Your task to perform on an android device: Add "logitech g pro" to the cart on ebay.com Image 0: 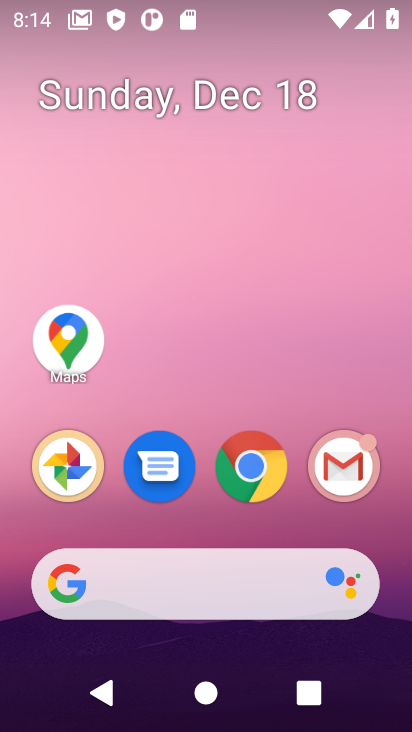
Step 0: click (247, 484)
Your task to perform on an android device: Add "logitech g pro" to the cart on ebay.com Image 1: 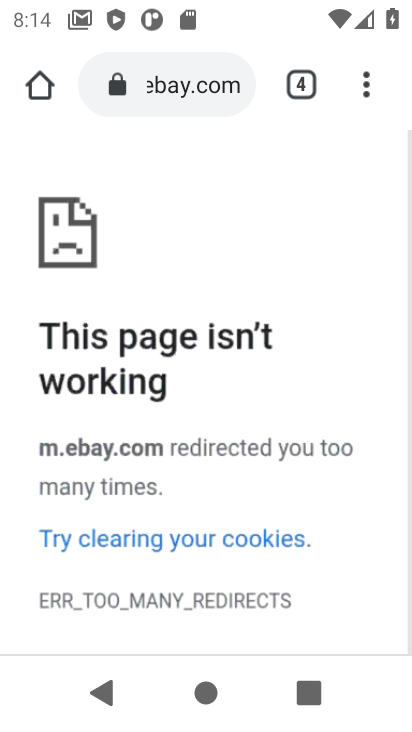
Step 1: click (264, 457)
Your task to perform on an android device: Add "logitech g pro" to the cart on ebay.com Image 2: 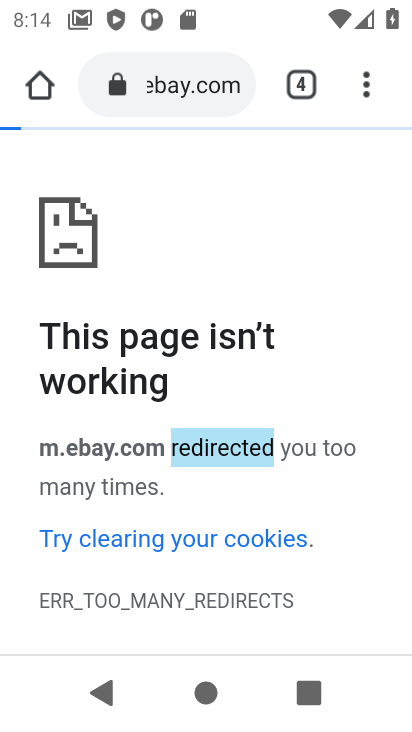
Step 2: click (172, 83)
Your task to perform on an android device: Add "logitech g pro" to the cart on ebay.com Image 3: 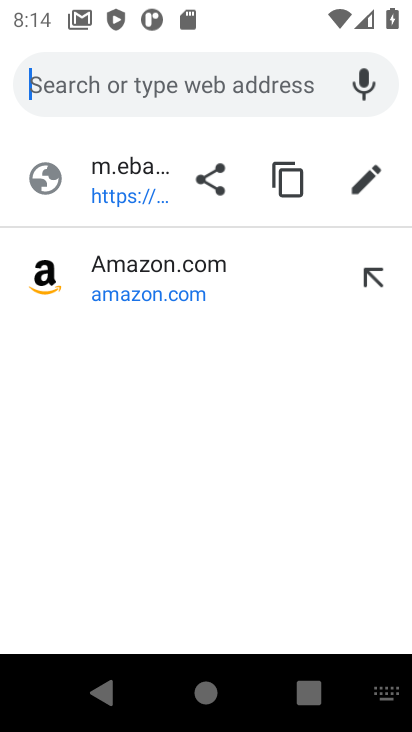
Step 3: type "ebay"
Your task to perform on an android device: Add "logitech g pro" to the cart on ebay.com Image 4: 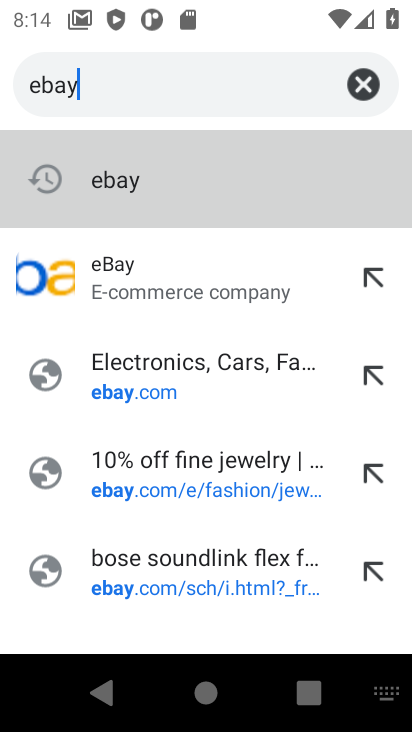
Step 4: click (182, 284)
Your task to perform on an android device: Add "logitech g pro" to the cart on ebay.com Image 5: 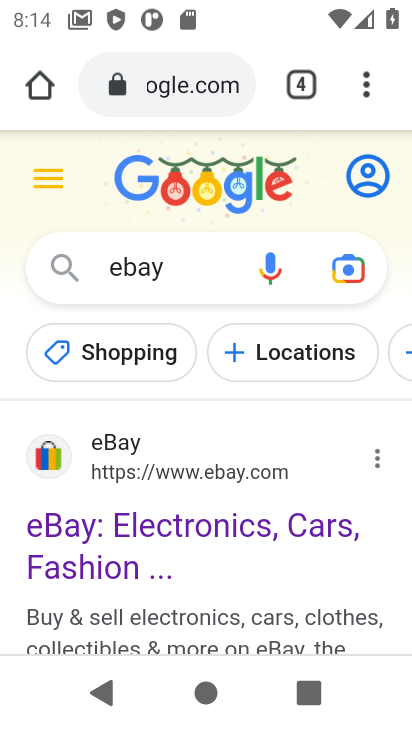
Step 5: click (256, 536)
Your task to perform on an android device: Add "logitech g pro" to the cart on ebay.com Image 6: 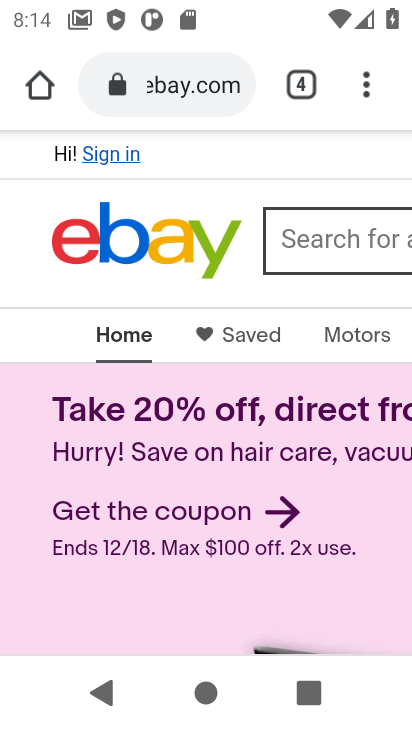
Step 6: click (344, 235)
Your task to perform on an android device: Add "logitech g pro" to the cart on ebay.com Image 7: 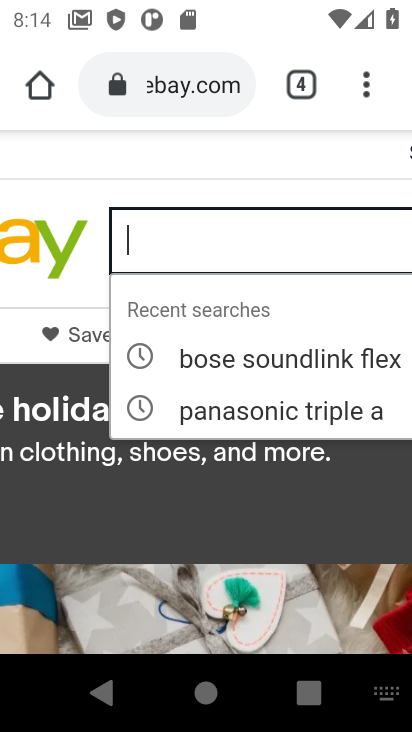
Step 7: type "logitech g pro"
Your task to perform on an android device: Add "logitech g pro" to the cart on ebay.com Image 8: 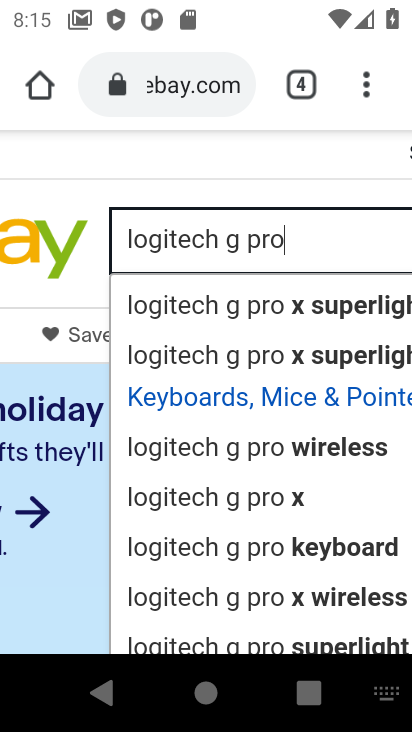
Step 8: click (252, 300)
Your task to perform on an android device: Add "logitech g pro" to the cart on ebay.com Image 9: 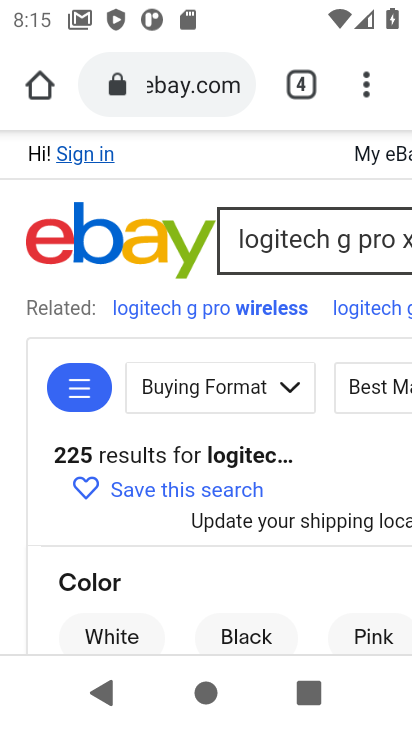
Step 9: drag from (230, 570) to (209, 102)
Your task to perform on an android device: Add "logitech g pro" to the cart on ebay.com Image 10: 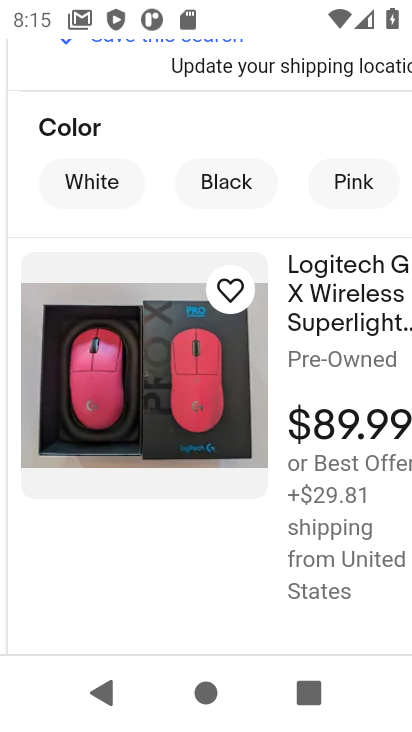
Step 10: click (339, 299)
Your task to perform on an android device: Add "logitech g pro" to the cart on ebay.com Image 11: 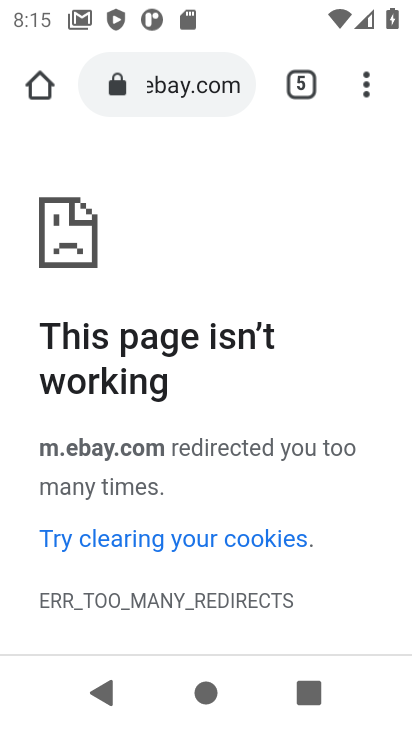
Step 11: task complete